Your task to perform on an android device: create a new album in the google photos Image 0: 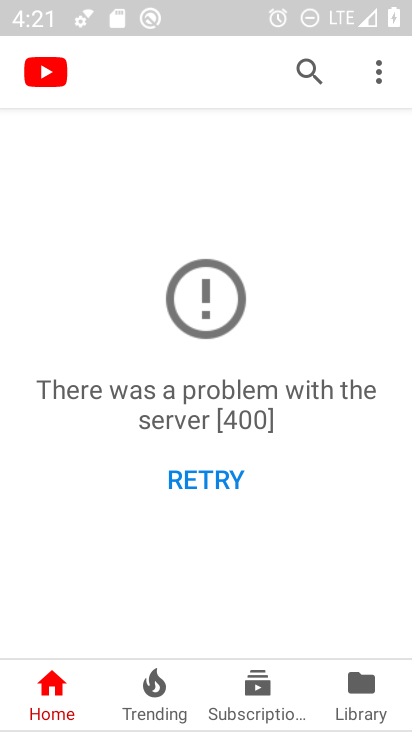
Step 0: press back button
Your task to perform on an android device: create a new album in the google photos Image 1: 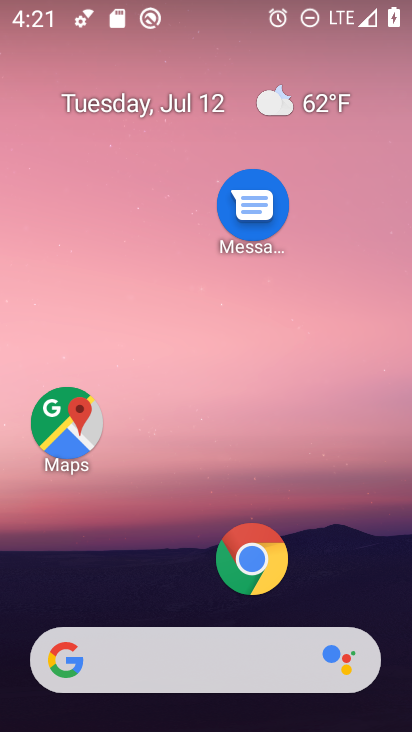
Step 1: drag from (119, 611) to (240, 21)
Your task to perform on an android device: create a new album in the google photos Image 2: 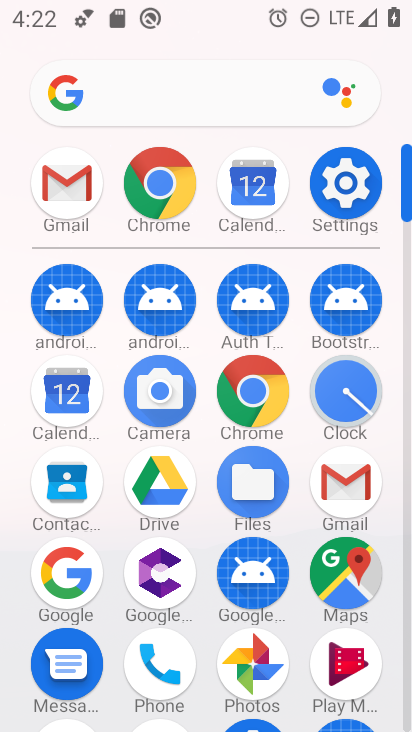
Step 2: click (261, 674)
Your task to perform on an android device: create a new album in the google photos Image 3: 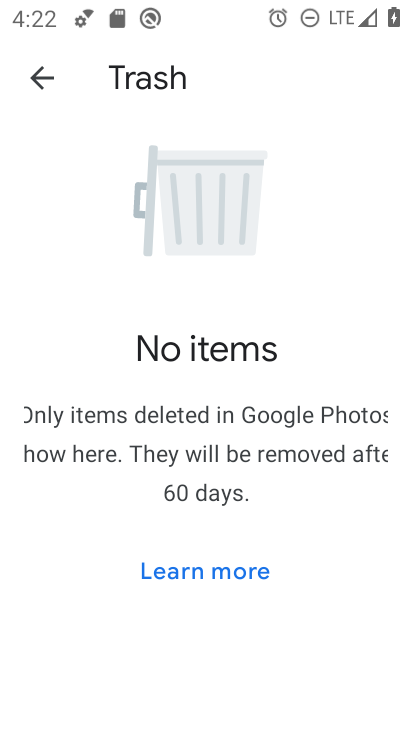
Step 3: click (45, 71)
Your task to perform on an android device: create a new album in the google photos Image 4: 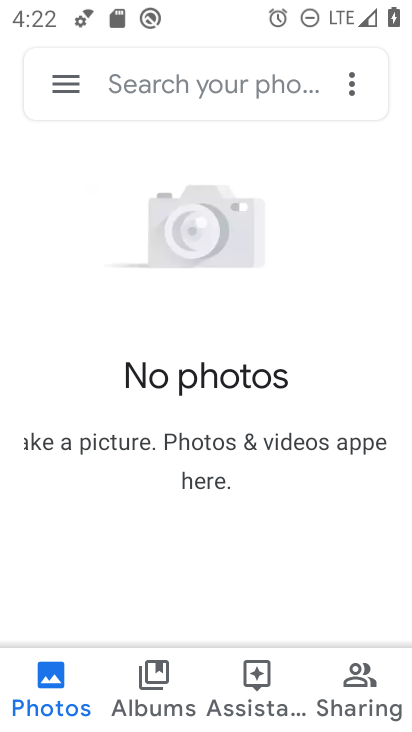
Step 4: click (150, 709)
Your task to perform on an android device: create a new album in the google photos Image 5: 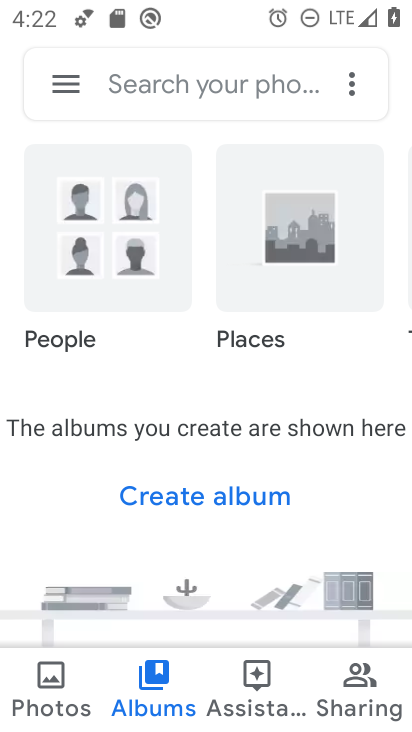
Step 5: click (141, 496)
Your task to perform on an android device: create a new album in the google photos Image 6: 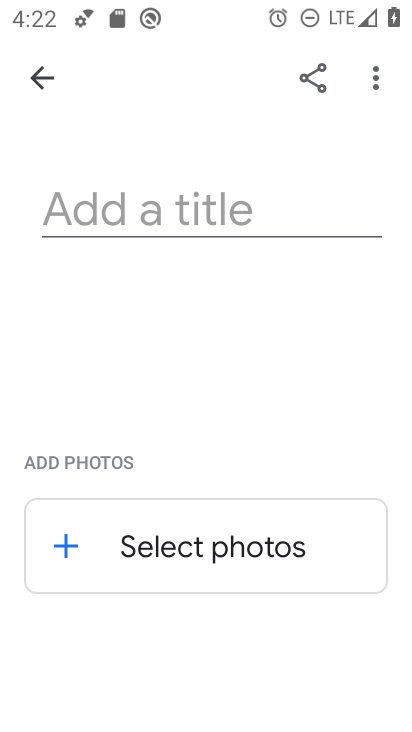
Step 6: click (188, 200)
Your task to perform on an android device: create a new album in the google photos Image 7: 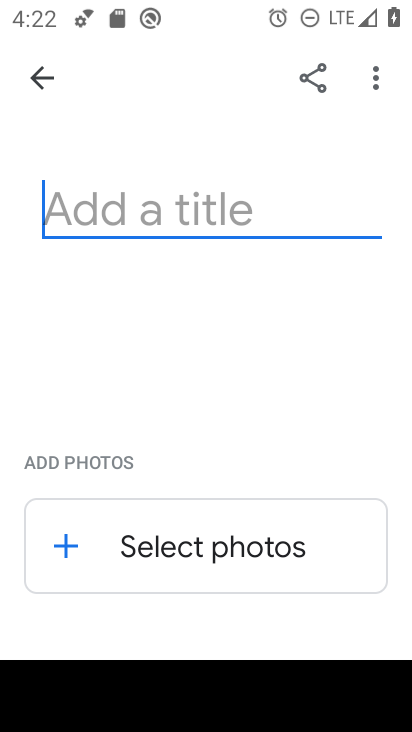
Step 7: type "hvbjb"
Your task to perform on an android device: create a new album in the google photos Image 8: 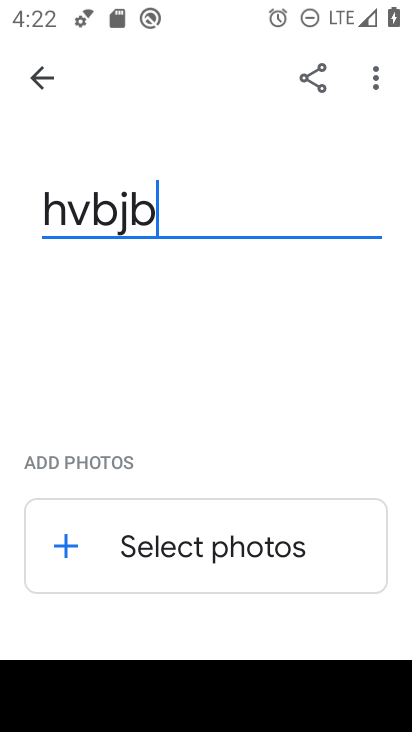
Step 8: click (177, 546)
Your task to perform on an android device: create a new album in the google photos Image 9: 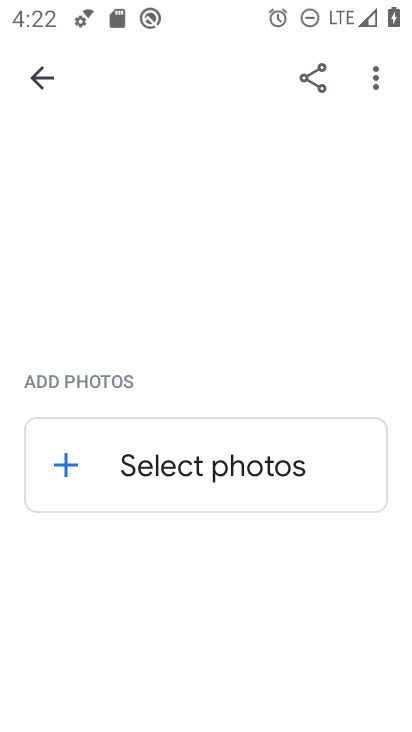
Step 9: click (186, 460)
Your task to perform on an android device: create a new album in the google photos Image 10: 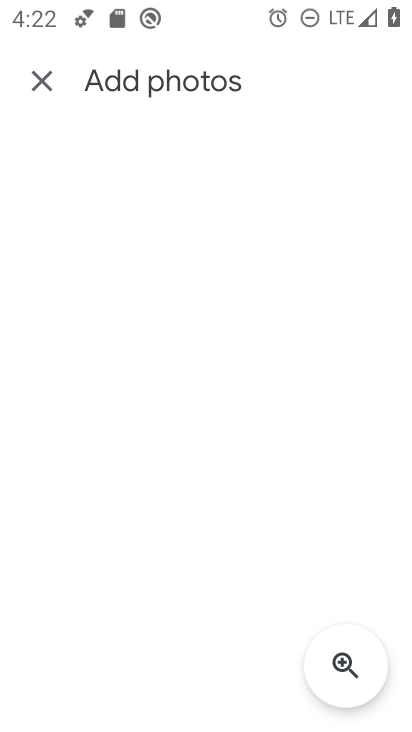
Step 10: task complete